Your task to perform on an android device: Open Chrome and go to the settings page Image 0: 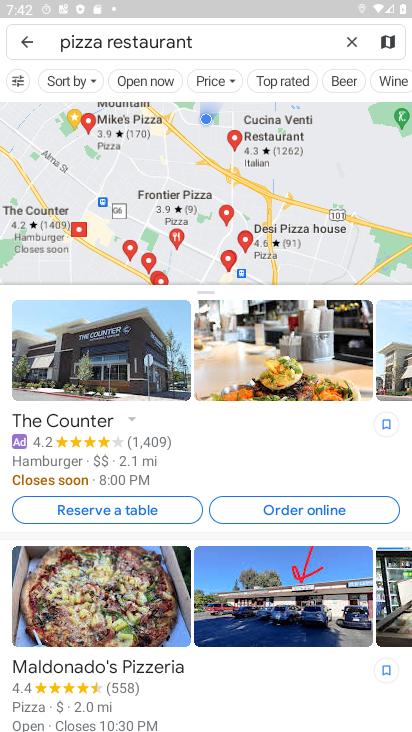
Step 0: press home button
Your task to perform on an android device: Open Chrome and go to the settings page Image 1: 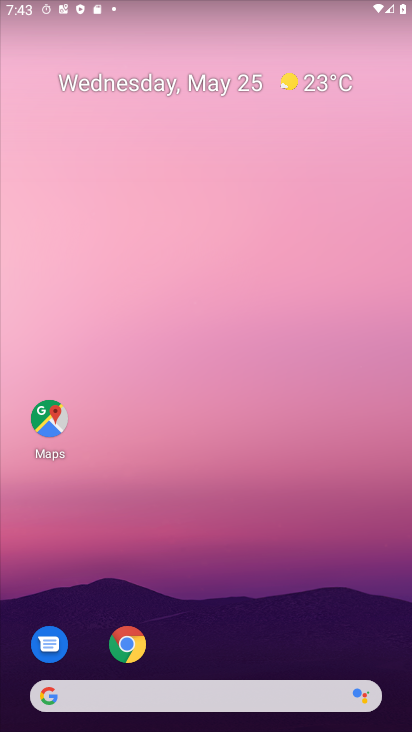
Step 1: drag from (257, 651) to (272, 76)
Your task to perform on an android device: Open Chrome and go to the settings page Image 2: 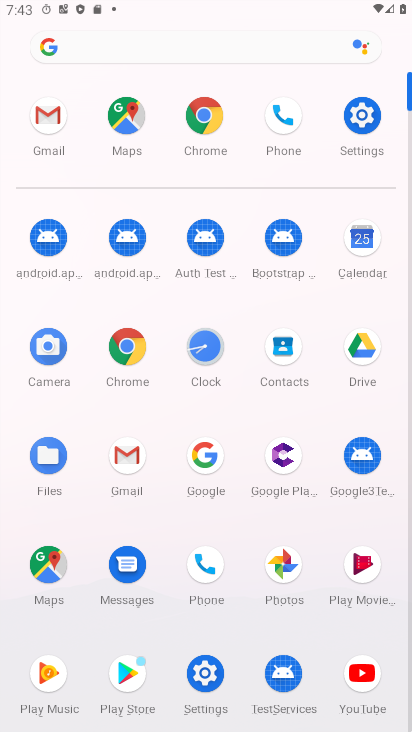
Step 2: click (202, 105)
Your task to perform on an android device: Open Chrome and go to the settings page Image 3: 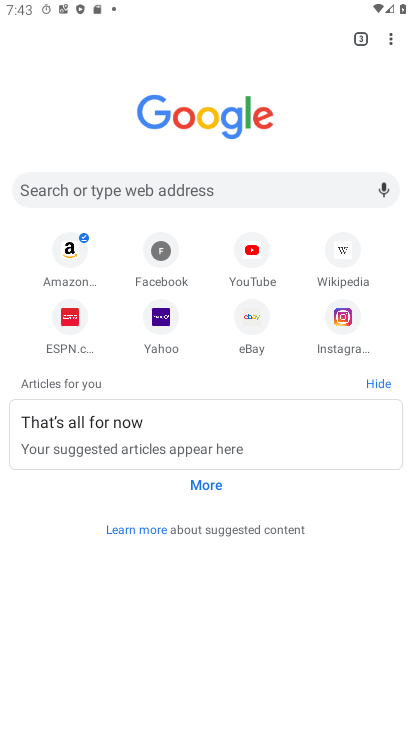
Step 3: click (394, 48)
Your task to perform on an android device: Open Chrome and go to the settings page Image 4: 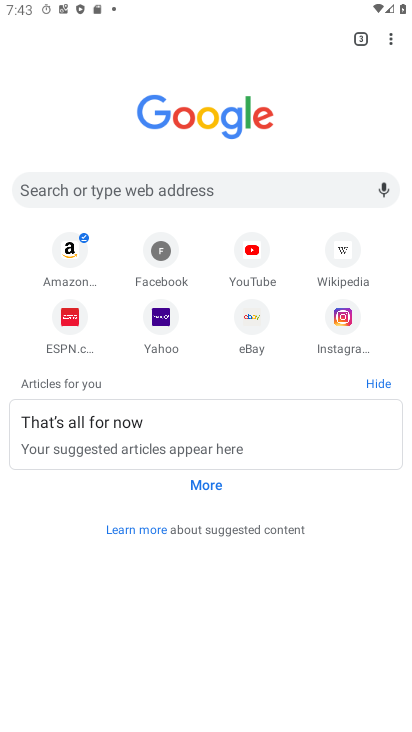
Step 4: click (382, 38)
Your task to perform on an android device: Open Chrome and go to the settings page Image 5: 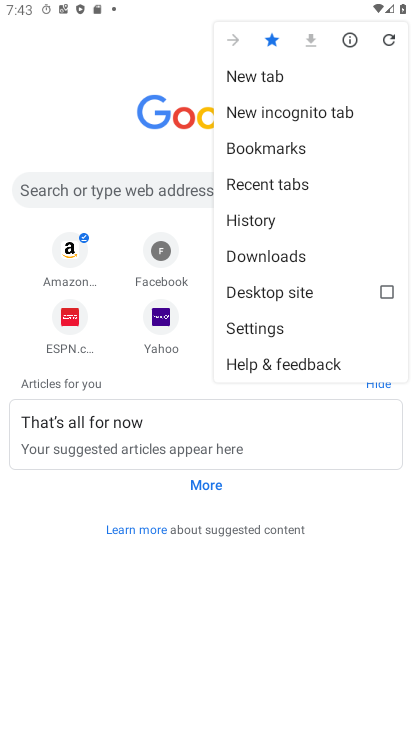
Step 5: click (262, 328)
Your task to perform on an android device: Open Chrome and go to the settings page Image 6: 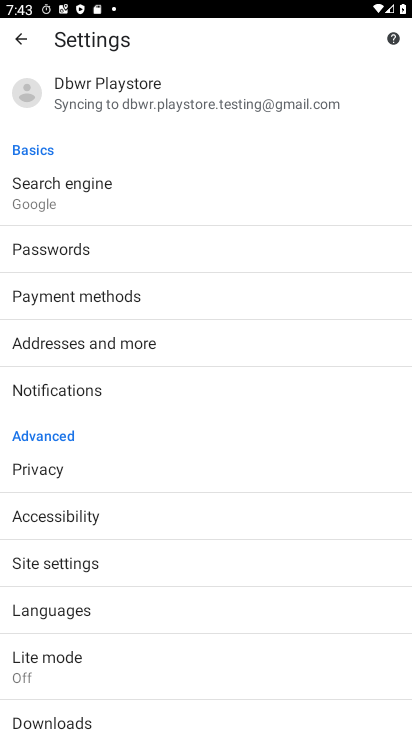
Step 6: task complete